Your task to perform on an android device: Open the calendar app, open the side menu, and click the "Day" option Image 0: 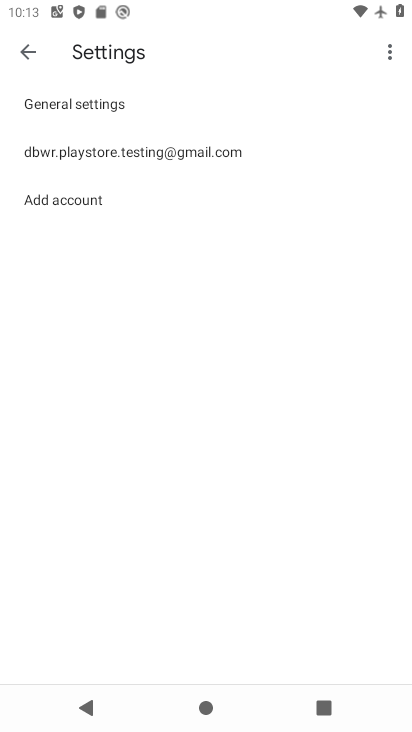
Step 0: press home button
Your task to perform on an android device: Open the calendar app, open the side menu, and click the "Day" option Image 1: 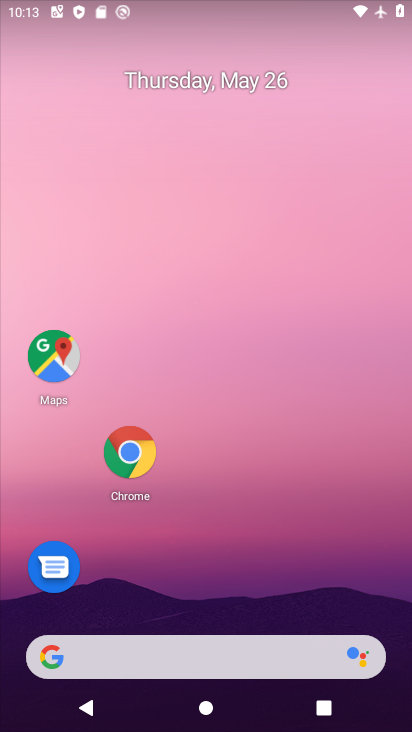
Step 1: drag from (192, 663) to (311, 80)
Your task to perform on an android device: Open the calendar app, open the side menu, and click the "Day" option Image 2: 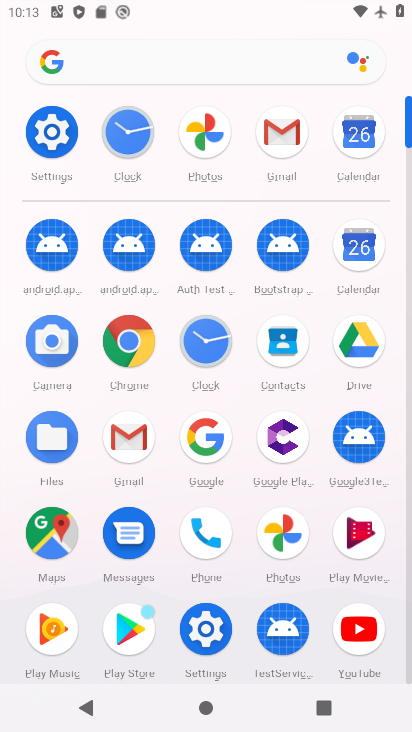
Step 2: click (358, 259)
Your task to perform on an android device: Open the calendar app, open the side menu, and click the "Day" option Image 3: 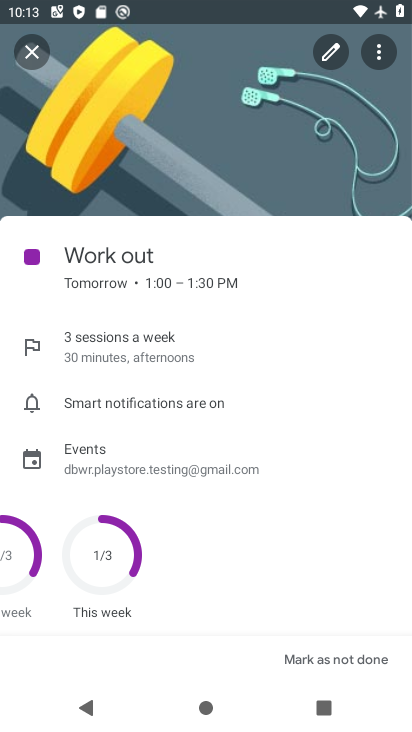
Step 3: click (37, 47)
Your task to perform on an android device: Open the calendar app, open the side menu, and click the "Day" option Image 4: 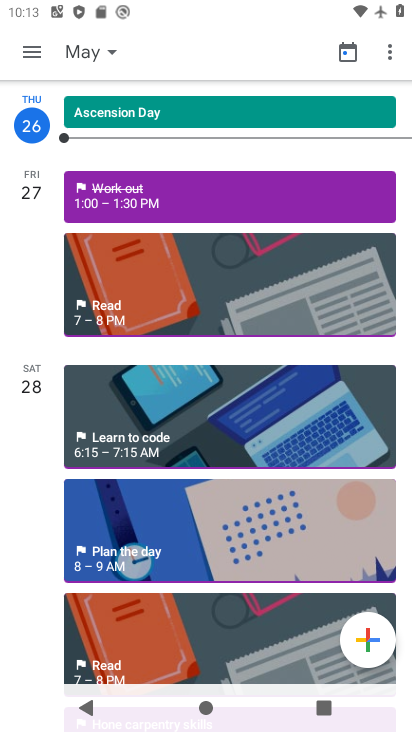
Step 4: click (28, 49)
Your task to perform on an android device: Open the calendar app, open the side menu, and click the "Day" option Image 5: 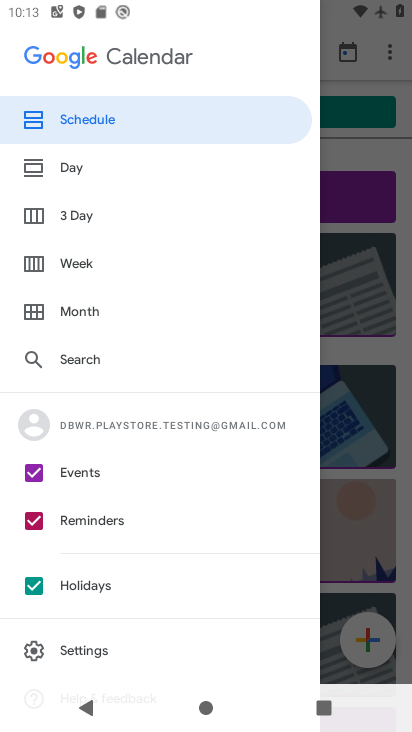
Step 5: click (70, 167)
Your task to perform on an android device: Open the calendar app, open the side menu, and click the "Day" option Image 6: 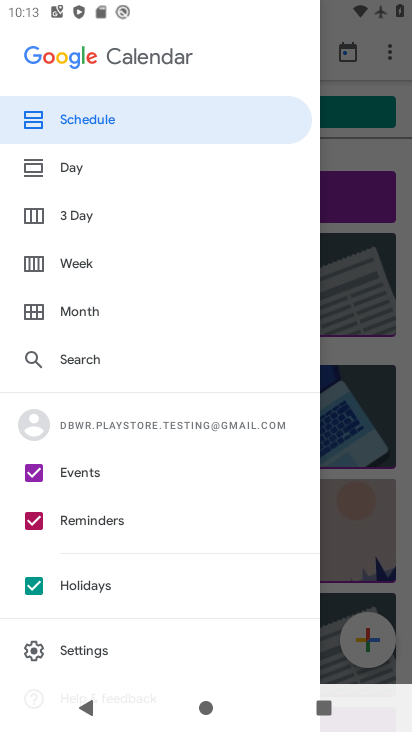
Step 6: click (77, 168)
Your task to perform on an android device: Open the calendar app, open the side menu, and click the "Day" option Image 7: 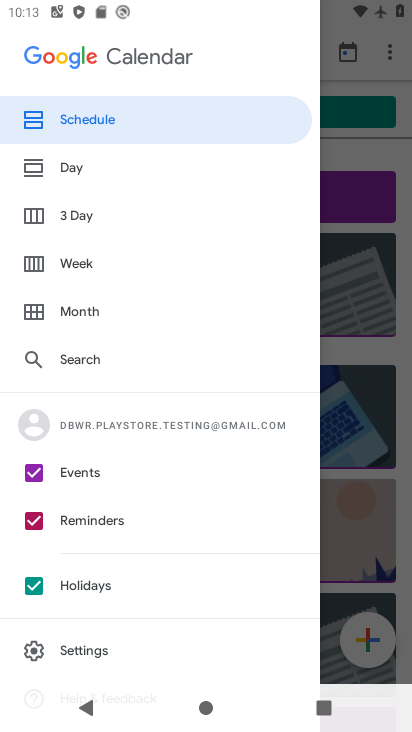
Step 7: click (63, 171)
Your task to perform on an android device: Open the calendar app, open the side menu, and click the "Day" option Image 8: 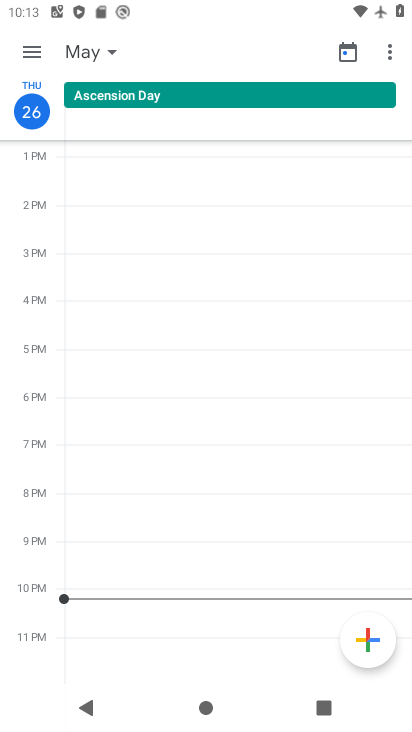
Step 8: task complete